Your task to perform on an android device: Search for sushi restaurants on Maps Image 0: 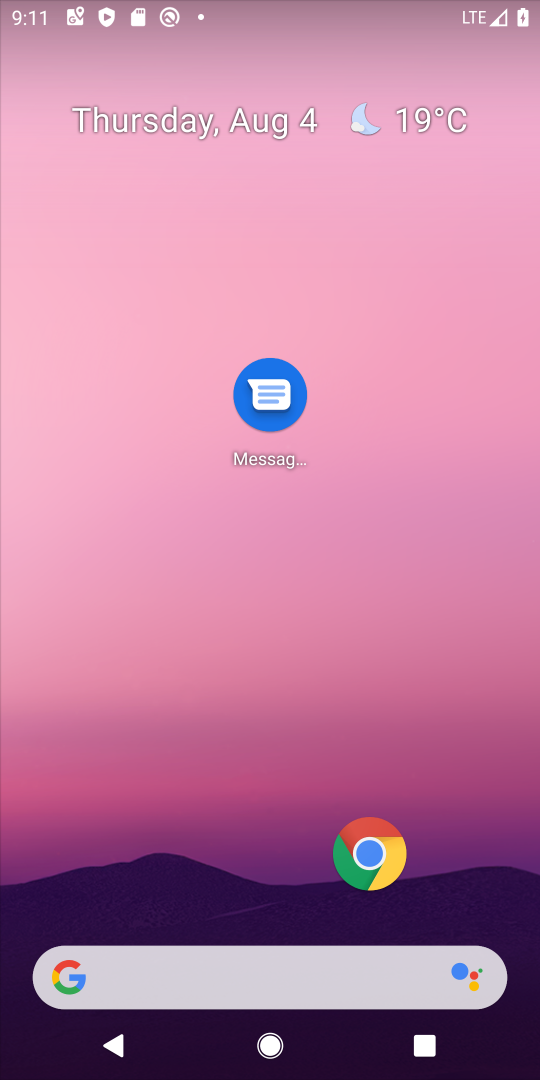
Step 0: drag from (223, 919) to (223, 143)
Your task to perform on an android device: Search for sushi restaurants on Maps Image 1: 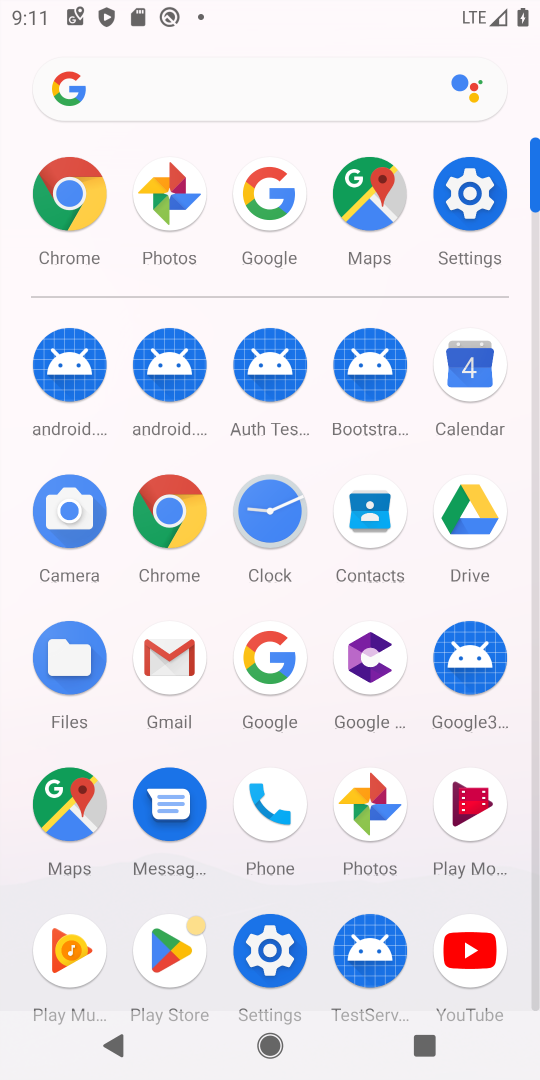
Step 1: click (85, 813)
Your task to perform on an android device: Search for sushi restaurants on Maps Image 2: 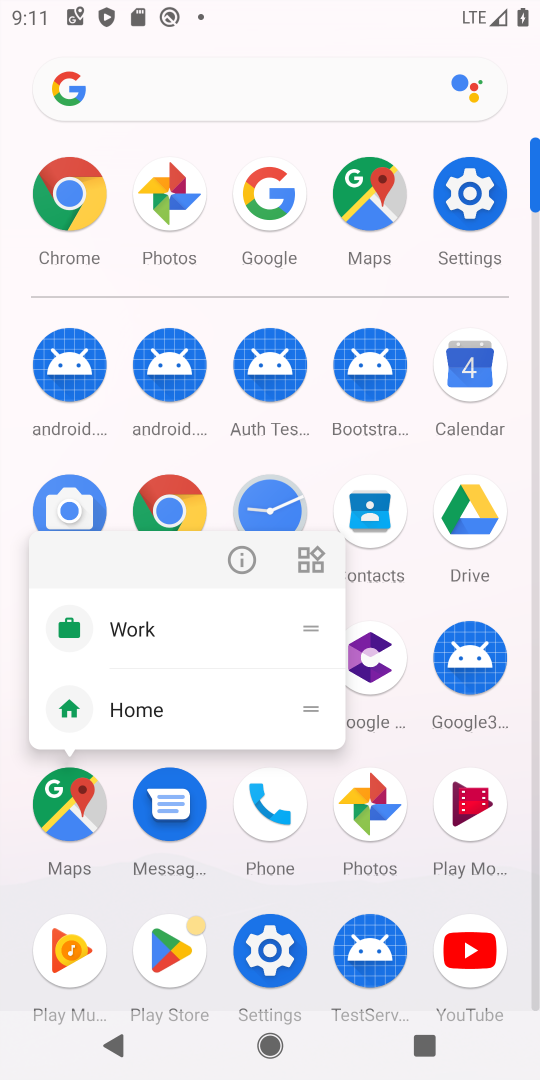
Step 2: click (85, 813)
Your task to perform on an android device: Search for sushi restaurants on Maps Image 3: 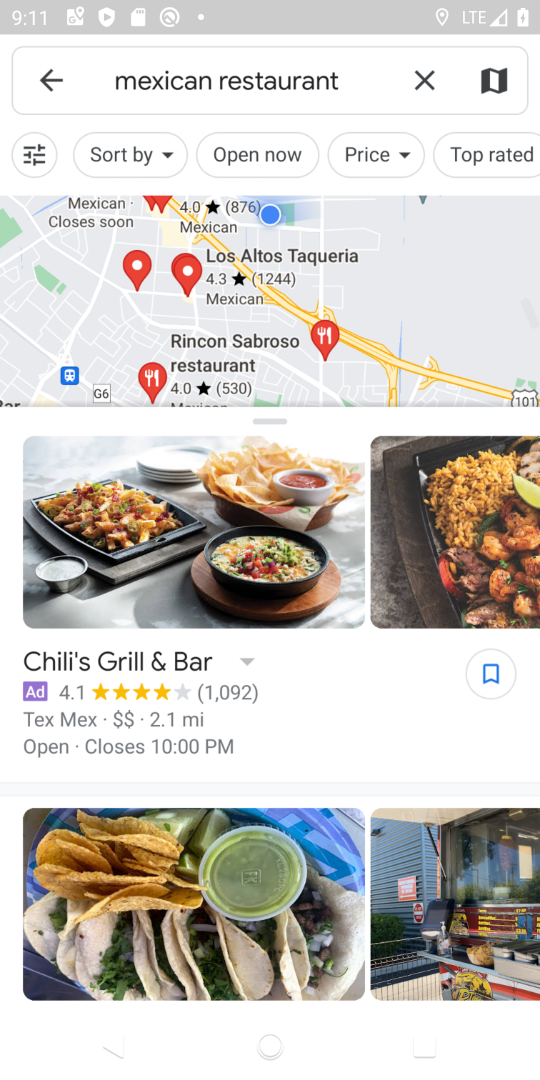
Step 3: click (419, 88)
Your task to perform on an android device: Search for sushi restaurants on Maps Image 4: 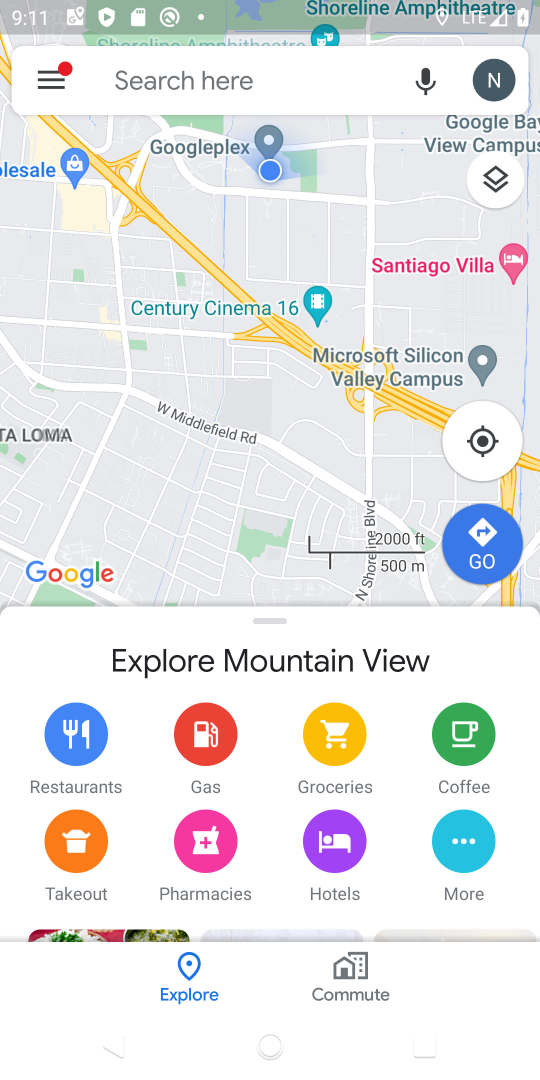
Step 4: click (320, 77)
Your task to perform on an android device: Search for sushi restaurants on Maps Image 5: 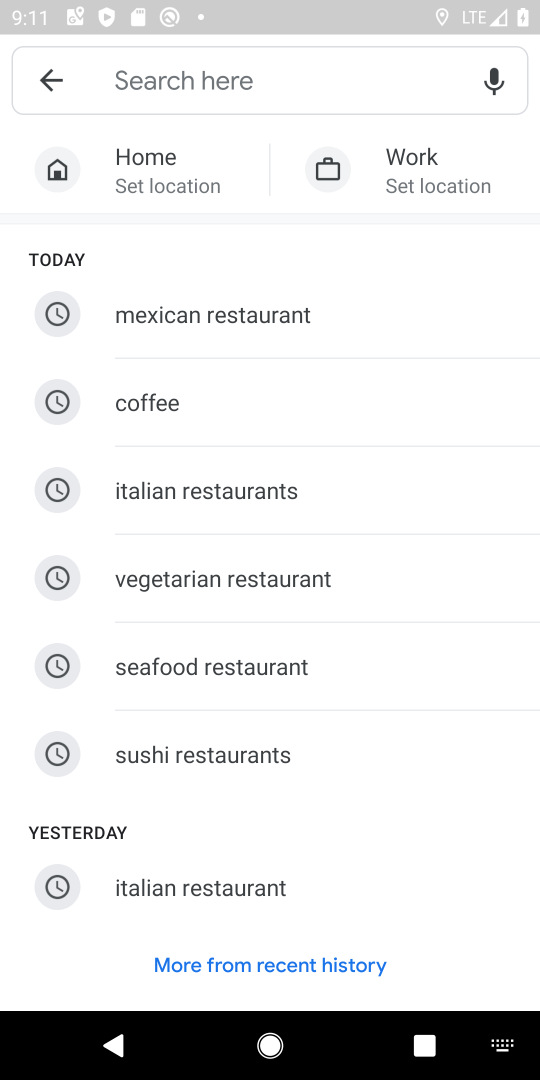
Step 5: click (183, 753)
Your task to perform on an android device: Search for sushi restaurants on Maps Image 6: 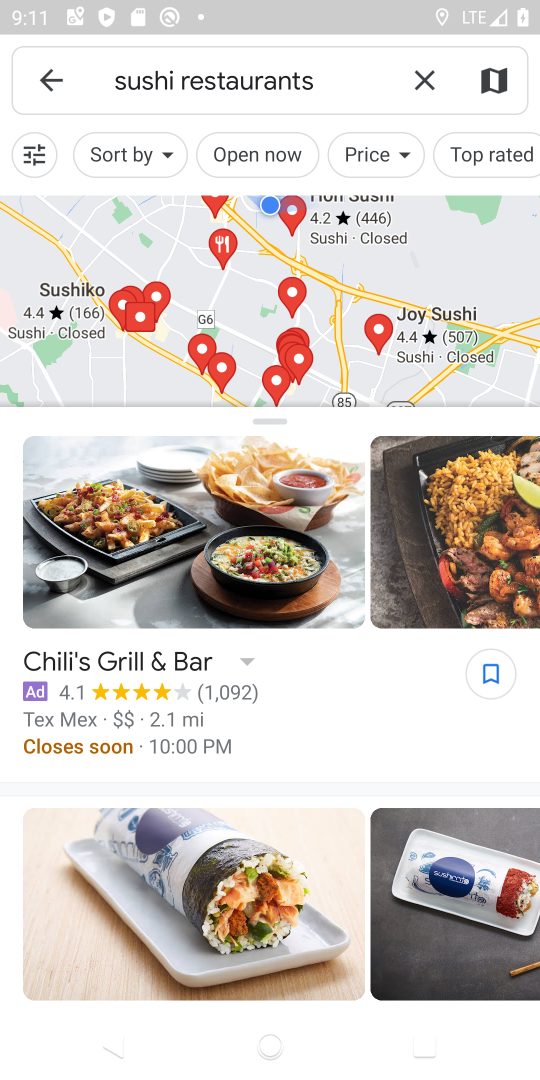
Step 6: task complete